Your task to perform on an android device: check storage Image 0: 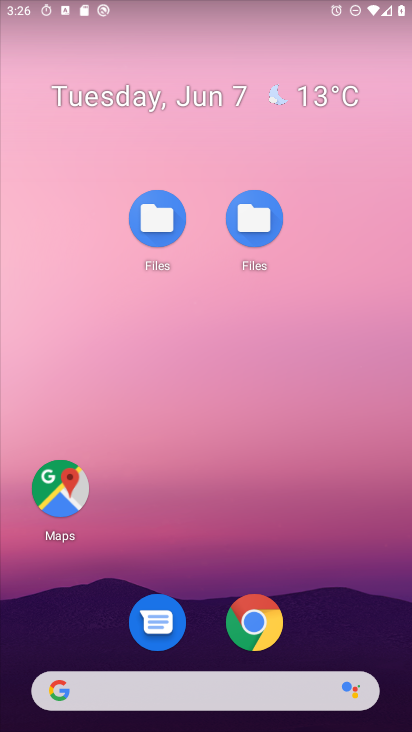
Step 0: drag from (329, 595) to (184, 69)
Your task to perform on an android device: check storage Image 1: 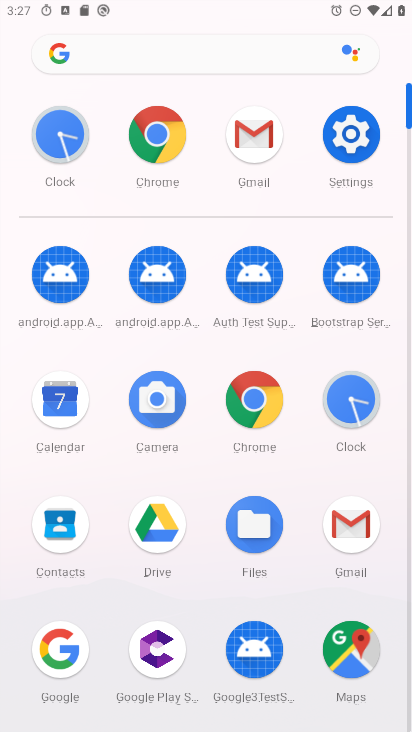
Step 1: click (357, 138)
Your task to perform on an android device: check storage Image 2: 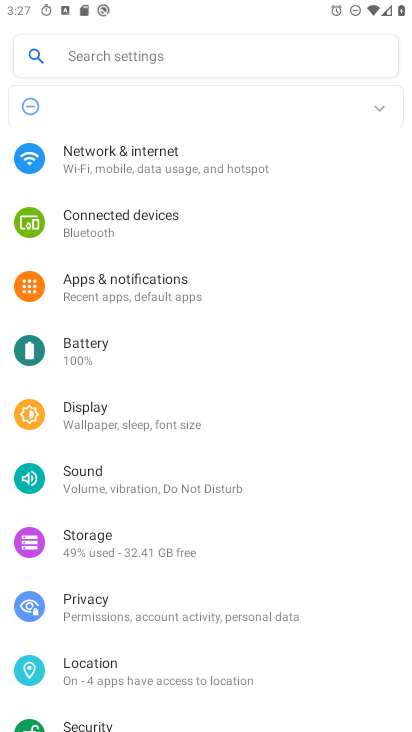
Step 2: click (349, 139)
Your task to perform on an android device: check storage Image 3: 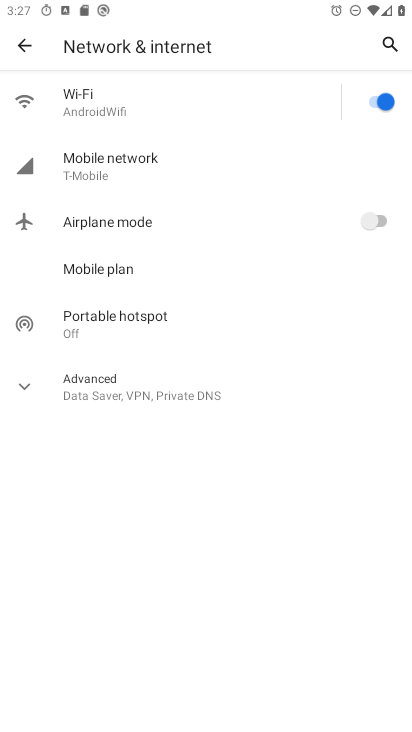
Step 3: click (19, 45)
Your task to perform on an android device: check storage Image 4: 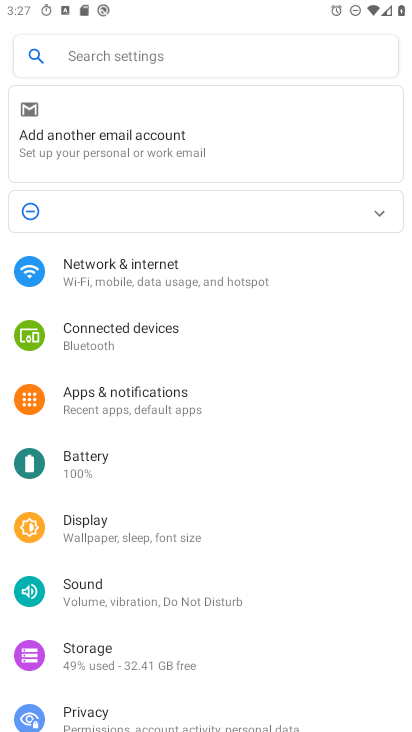
Step 4: click (145, 659)
Your task to perform on an android device: check storage Image 5: 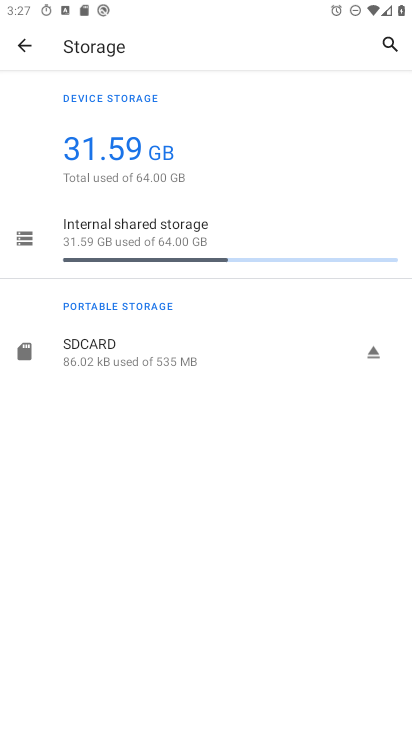
Step 5: task complete